Your task to perform on an android device: turn on the 12-hour format for clock Image 0: 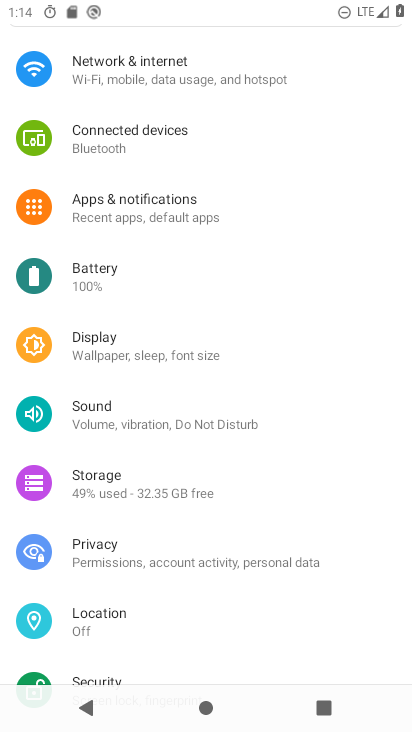
Step 0: press home button
Your task to perform on an android device: turn on the 12-hour format for clock Image 1: 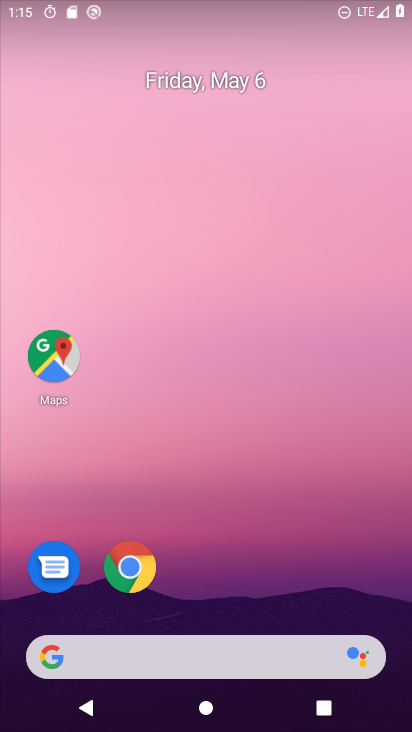
Step 1: drag from (315, 606) to (321, 19)
Your task to perform on an android device: turn on the 12-hour format for clock Image 2: 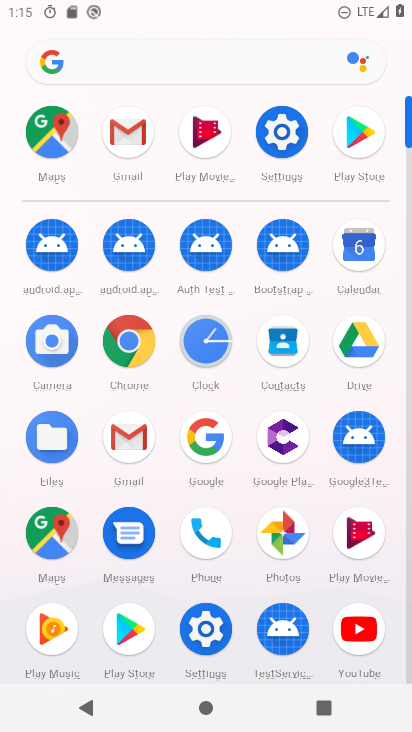
Step 2: click (210, 344)
Your task to perform on an android device: turn on the 12-hour format for clock Image 3: 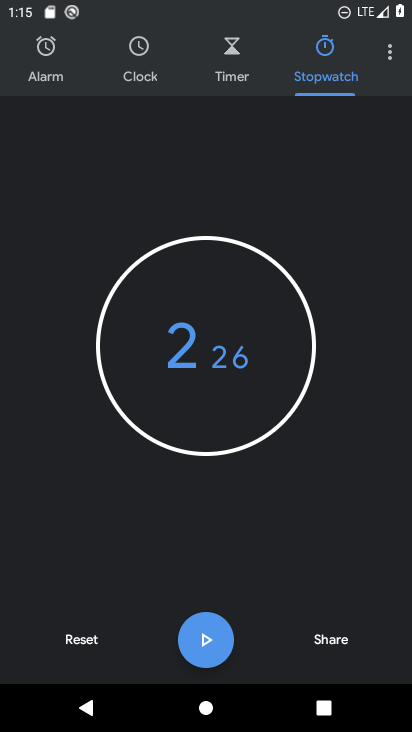
Step 3: click (389, 43)
Your task to perform on an android device: turn on the 12-hour format for clock Image 4: 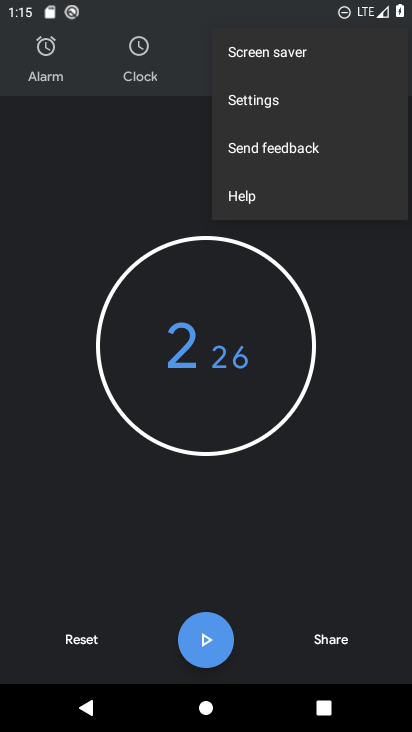
Step 4: click (287, 118)
Your task to perform on an android device: turn on the 12-hour format for clock Image 5: 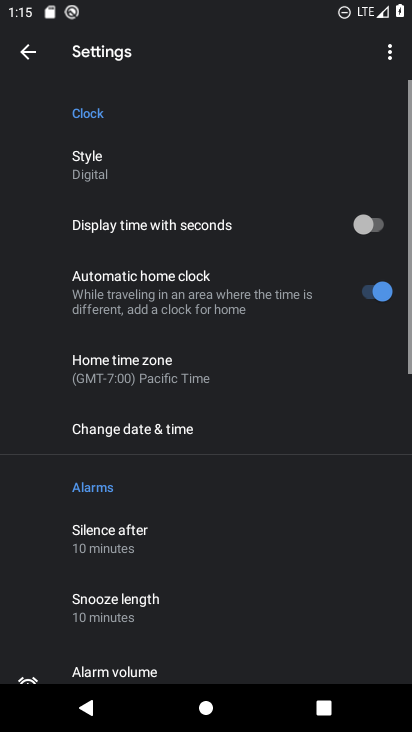
Step 5: click (138, 435)
Your task to perform on an android device: turn on the 12-hour format for clock Image 6: 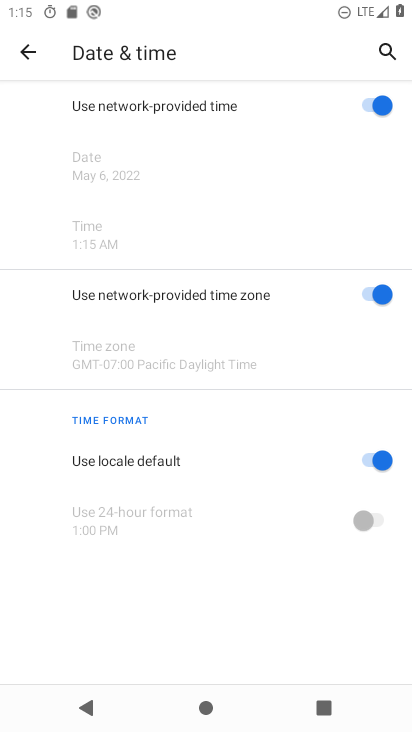
Step 6: task complete